Your task to perform on an android device: toggle data saver in the chrome app Image 0: 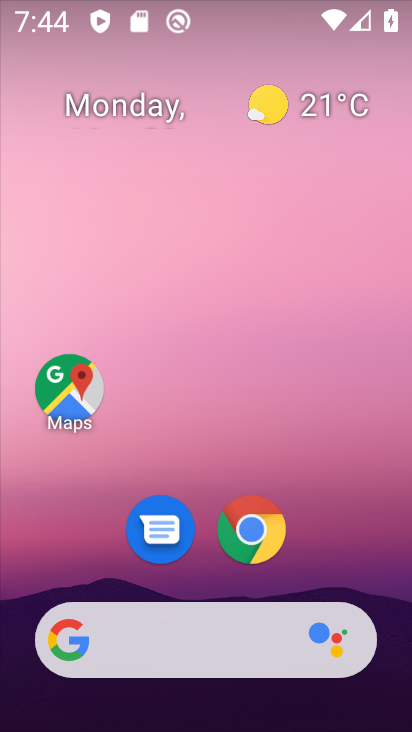
Step 0: click (245, 534)
Your task to perform on an android device: toggle data saver in the chrome app Image 1: 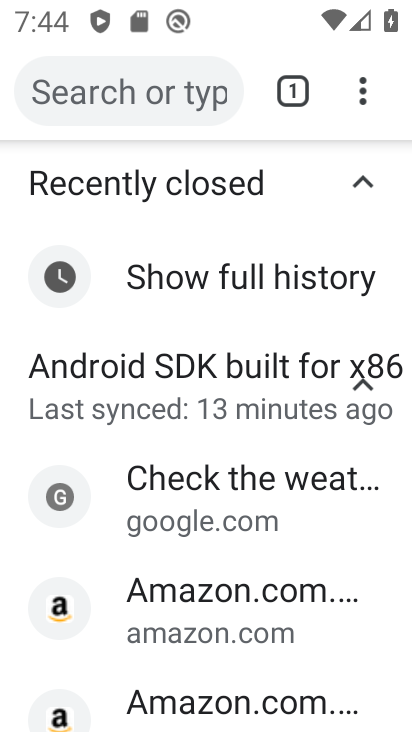
Step 1: click (361, 90)
Your task to perform on an android device: toggle data saver in the chrome app Image 2: 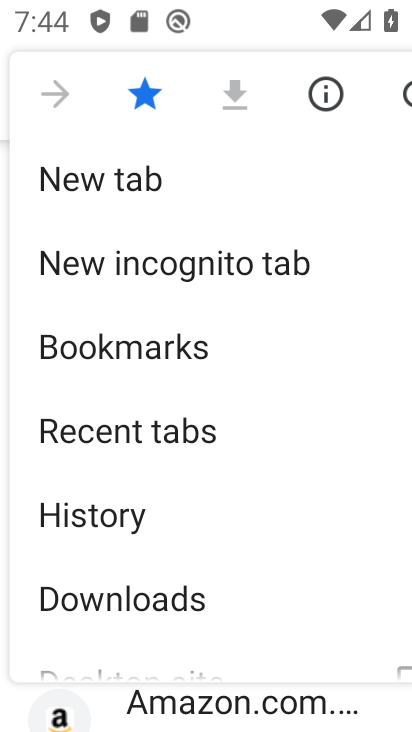
Step 2: drag from (130, 636) to (169, 303)
Your task to perform on an android device: toggle data saver in the chrome app Image 3: 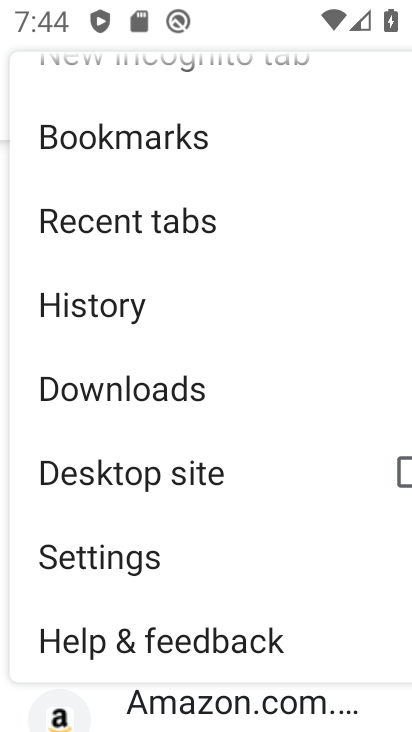
Step 3: click (135, 563)
Your task to perform on an android device: toggle data saver in the chrome app Image 4: 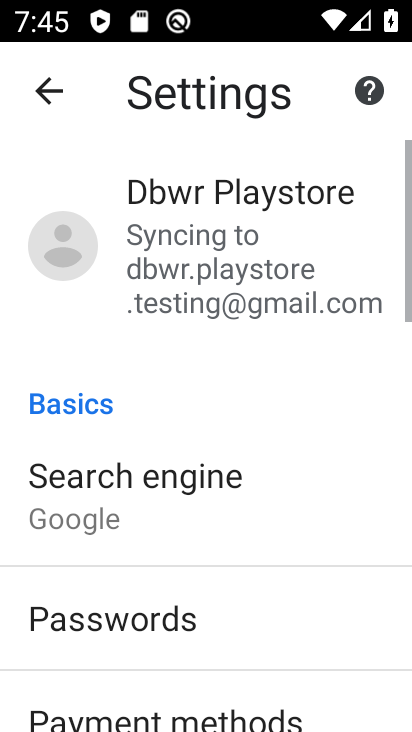
Step 4: drag from (225, 679) to (267, 381)
Your task to perform on an android device: toggle data saver in the chrome app Image 5: 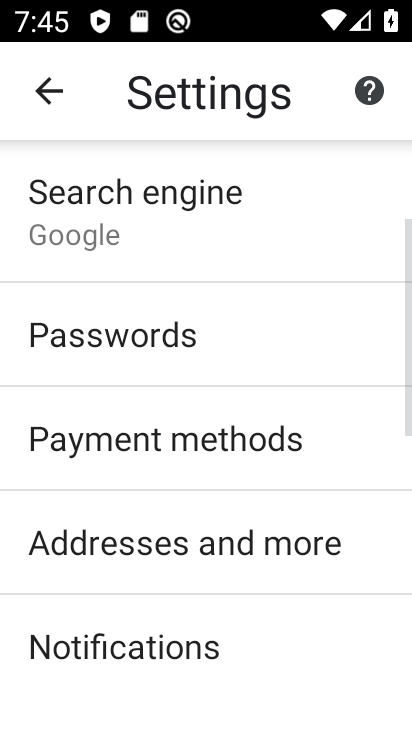
Step 5: drag from (233, 660) to (299, 343)
Your task to perform on an android device: toggle data saver in the chrome app Image 6: 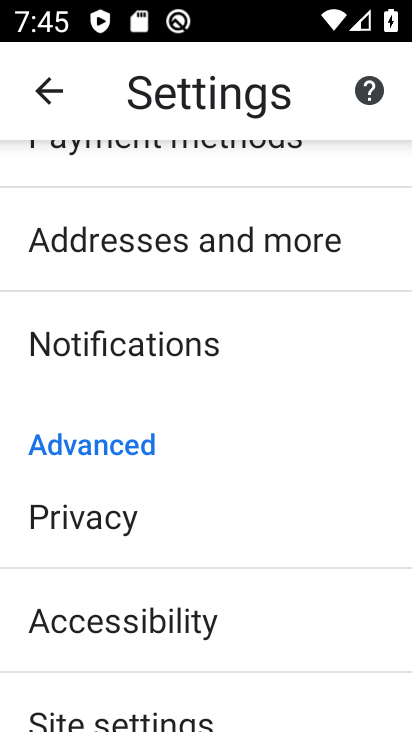
Step 6: drag from (183, 647) to (240, 460)
Your task to perform on an android device: toggle data saver in the chrome app Image 7: 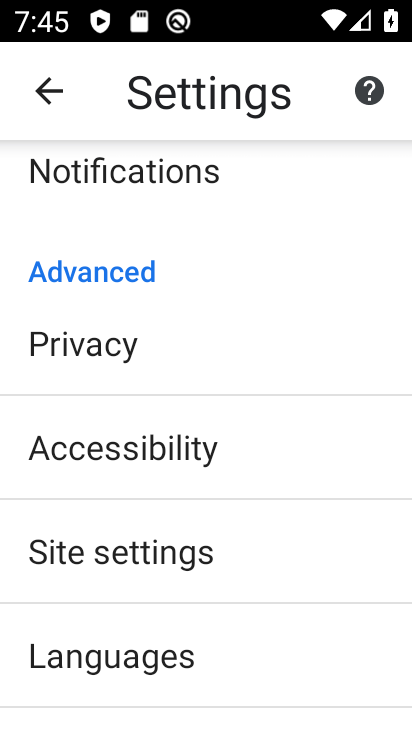
Step 7: drag from (118, 701) to (205, 488)
Your task to perform on an android device: toggle data saver in the chrome app Image 8: 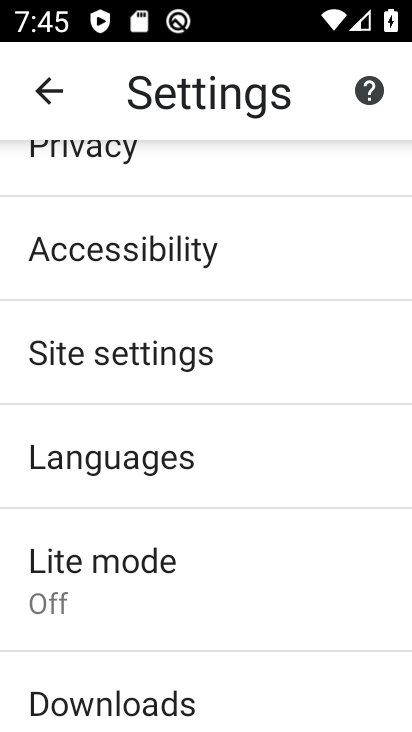
Step 8: click (214, 596)
Your task to perform on an android device: toggle data saver in the chrome app Image 9: 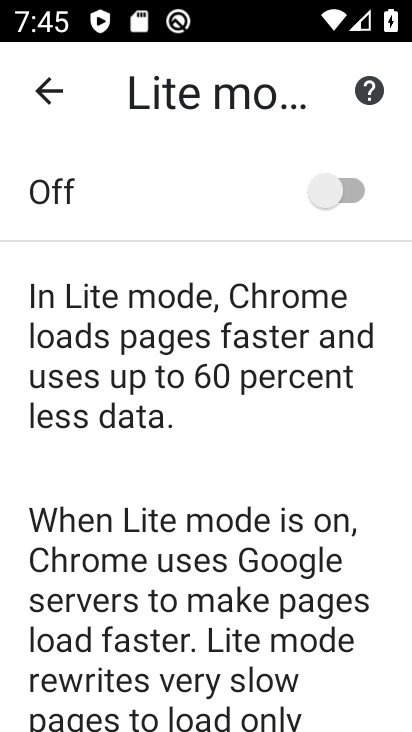
Step 9: click (340, 188)
Your task to perform on an android device: toggle data saver in the chrome app Image 10: 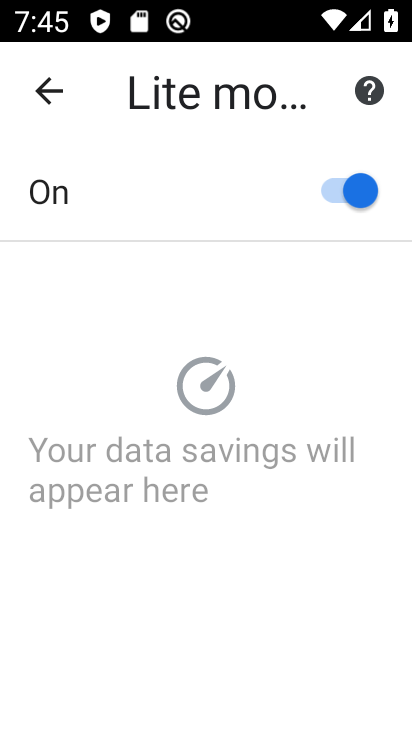
Step 10: task complete